Your task to perform on an android device: empty trash in google photos Image 0: 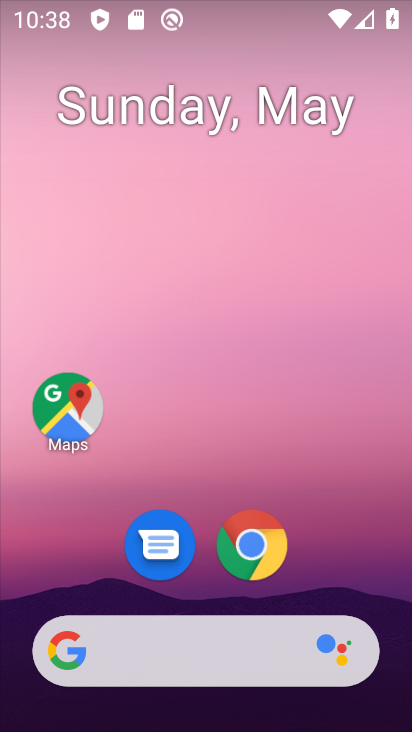
Step 0: drag from (389, 637) to (306, 46)
Your task to perform on an android device: empty trash in google photos Image 1: 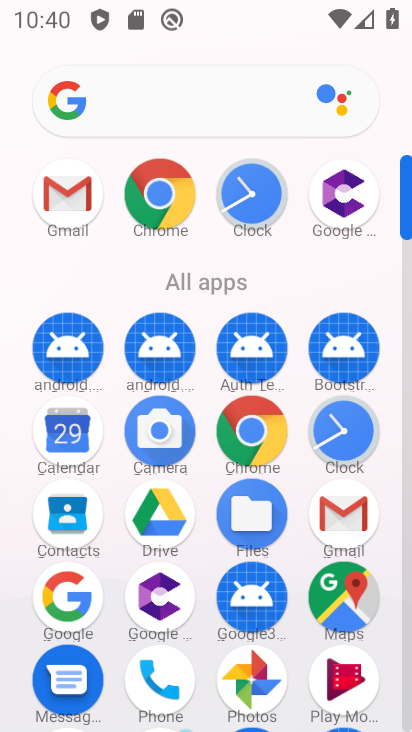
Step 1: click (238, 658)
Your task to perform on an android device: empty trash in google photos Image 2: 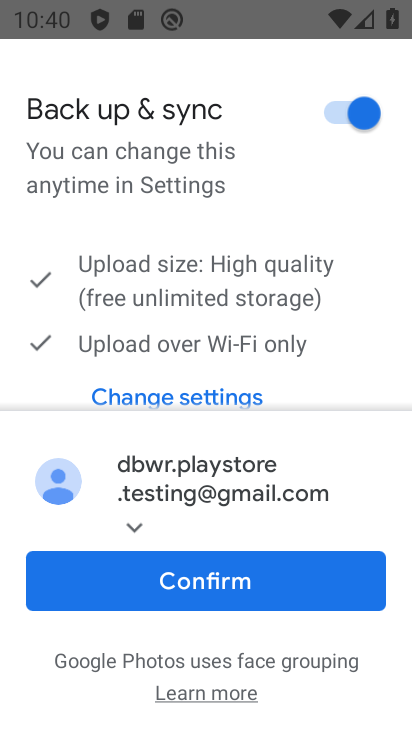
Step 2: click (108, 567)
Your task to perform on an android device: empty trash in google photos Image 3: 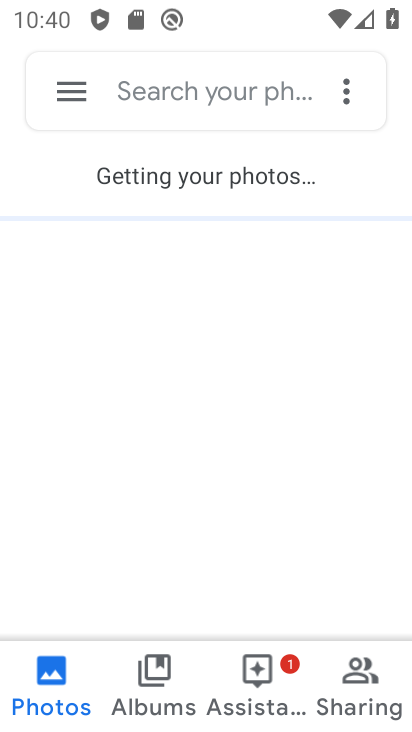
Step 3: click (73, 110)
Your task to perform on an android device: empty trash in google photos Image 4: 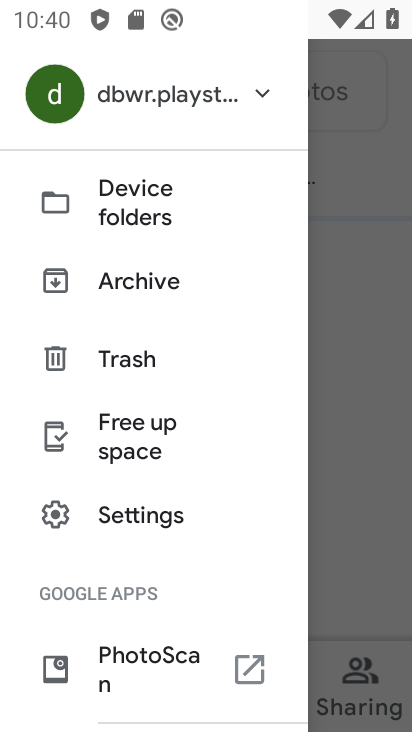
Step 4: click (122, 360)
Your task to perform on an android device: empty trash in google photos Image 5: 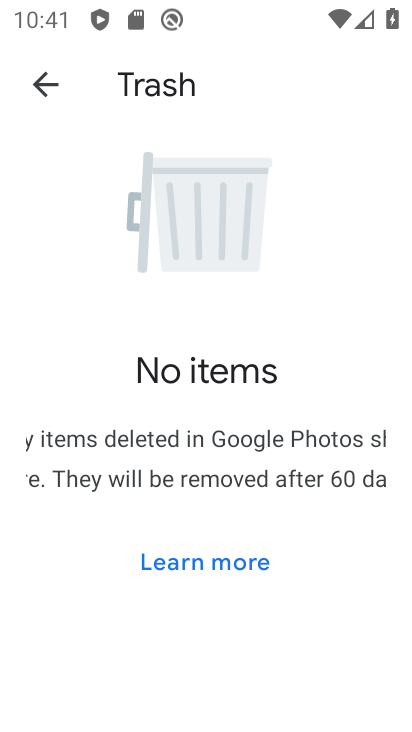
Step 5: task complete